Your task to perform on an android device: turn off javascript in the chrome app Image 0: 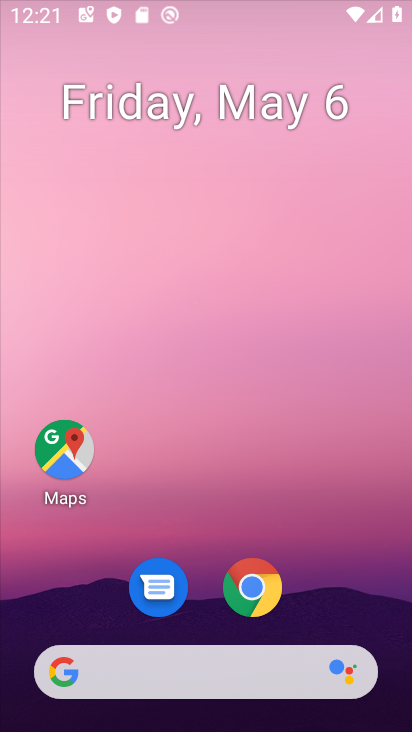
Step 0: drag from (213, 580) to (285, 41)
Your task to perform on an android device: turn off javascript in the chrome app Image 1: 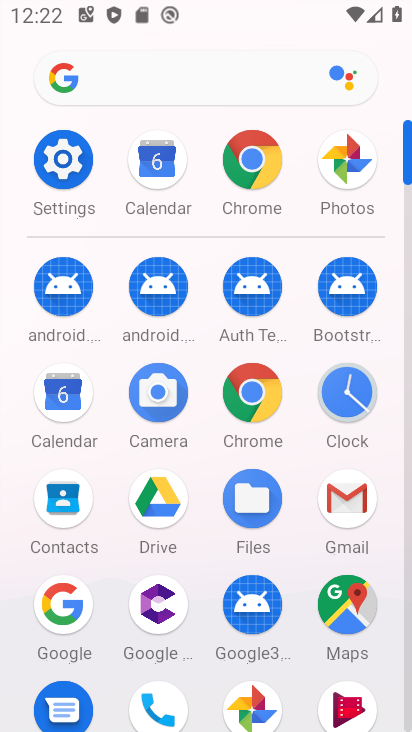
Step 1: click (254, 158)
Your task to perform on an android device: turn off javascript in the chrome app Image 2: 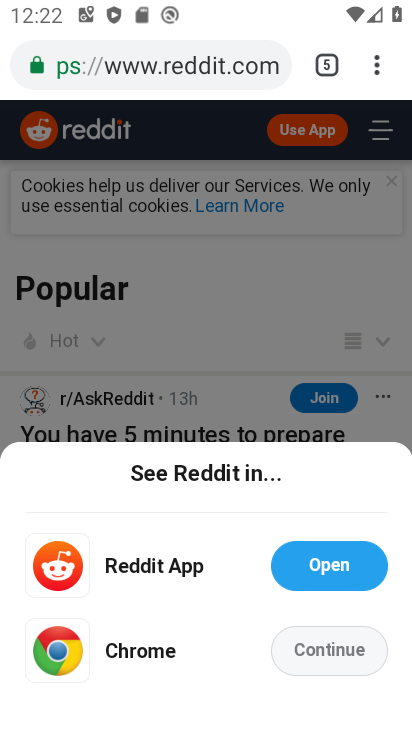
Step 2: click (231, 333)
Your task to perform on an android device: turn off javascript in the chrome app Image 3: 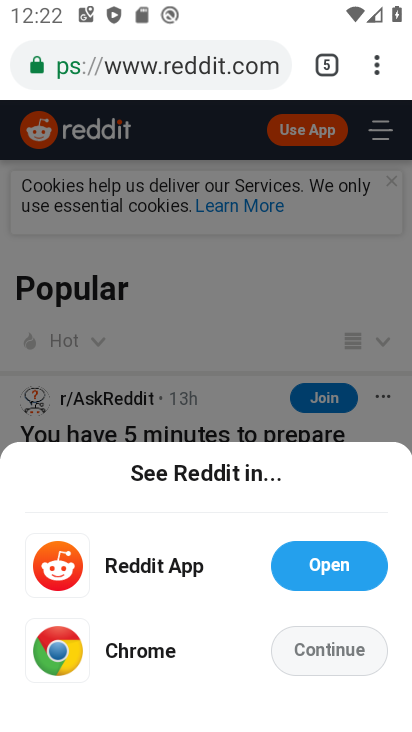
Step 3: drag from (373, 60) to (136, 624)
Your task to perform on an android device: turn off javascript in the chrome app Image 4: 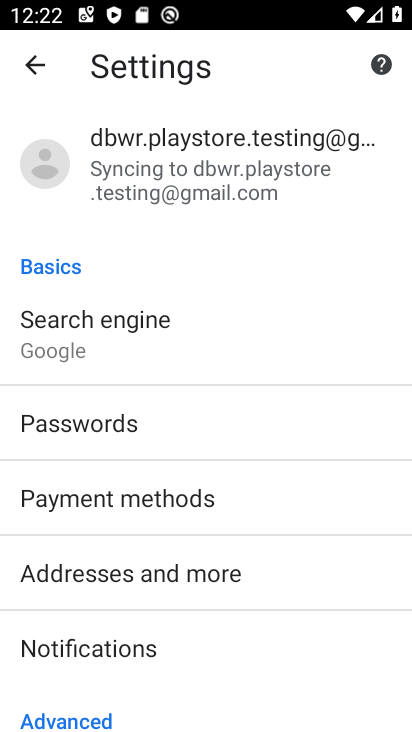
Step 4: drag from (185, 655) to (355, 34)
Your task to perform on an android device: turn off javascript in the chrome app Image 5: 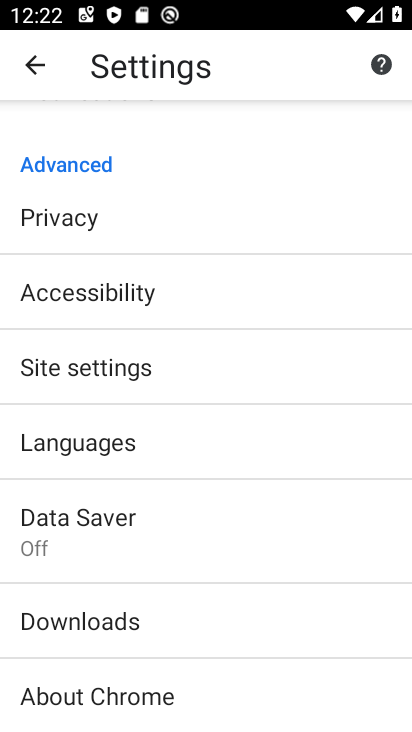
Step 5: click (100, 363)
Your task to perform on an android device: turn off javascript in the chrome app Image 6: 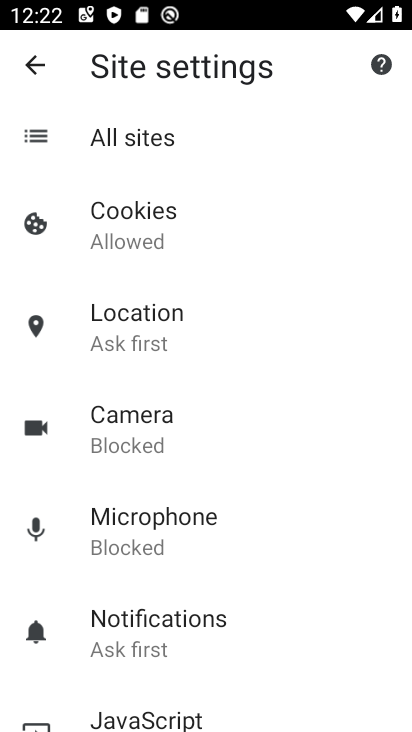
Step 6: click (156, 721)
Your task to perform on an android device: turn off javascript in the chrome app Image 7: 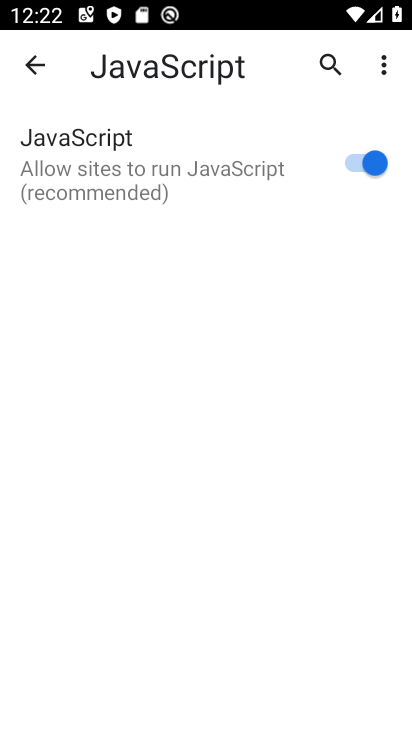
Step 7: click (373, 166)
Your task to perform on an android device: turn off javascript in the chrome app Image 8: 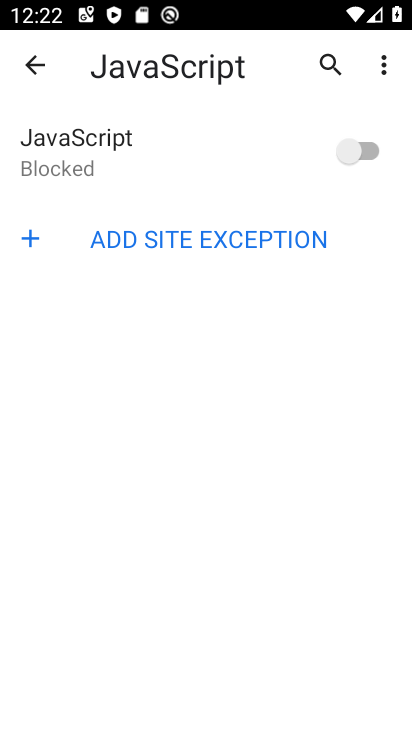
Step 8: task complete